Your task to perform on an android device: open chrome and create a bookmark for the current page Image 0: 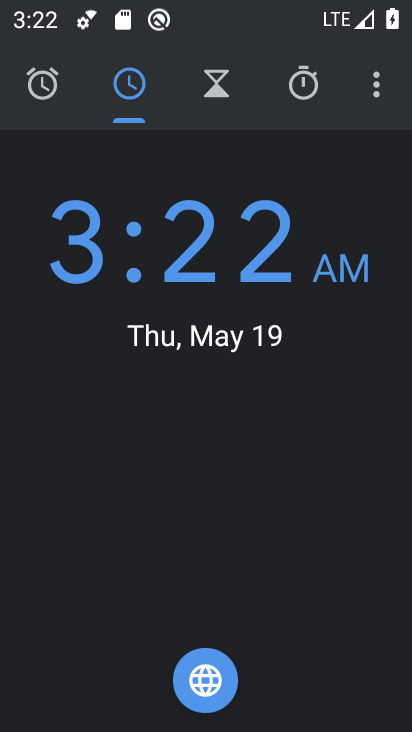
Step 0: press back button
Your task to perform on an android device: open chrome and create a bookmark for the current page Image 1: 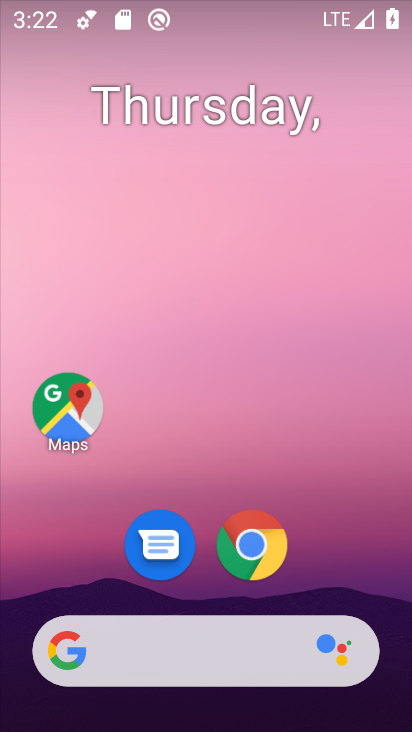
Step 1: click (251, 541)
Your task to perform on an android device: open chrome and create a bookmark for the current page Image 2: 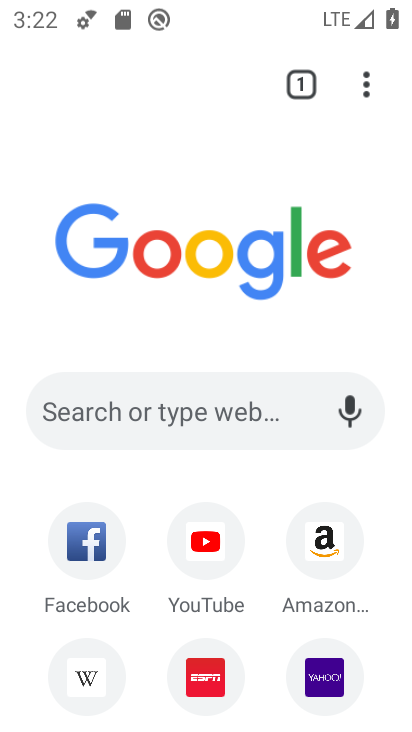
Step 2: click (365, 86)
Your task to perform on an android device: open chrome and create a bookmark for the current page Image 3: 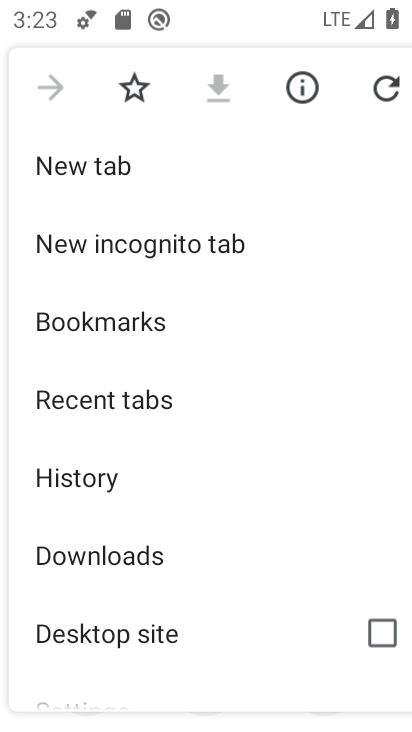
Step 3: click (134, 88)
Your task to perform on an android device: open chrome and create a bookmark for the current page Image 4: 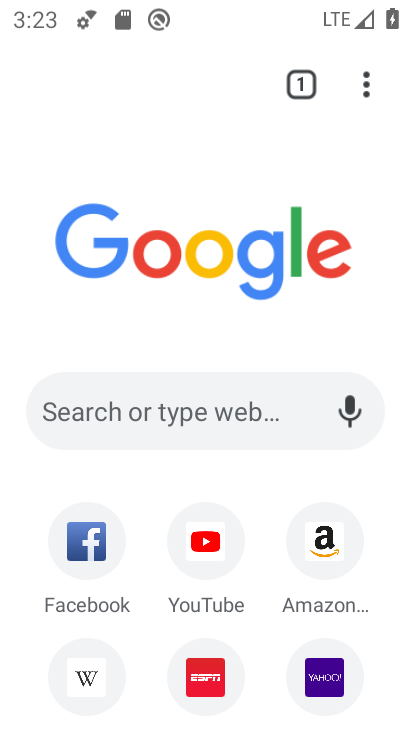
Step 4: task complete